Your task to perform on an android device: turn notification dots off Image 0: 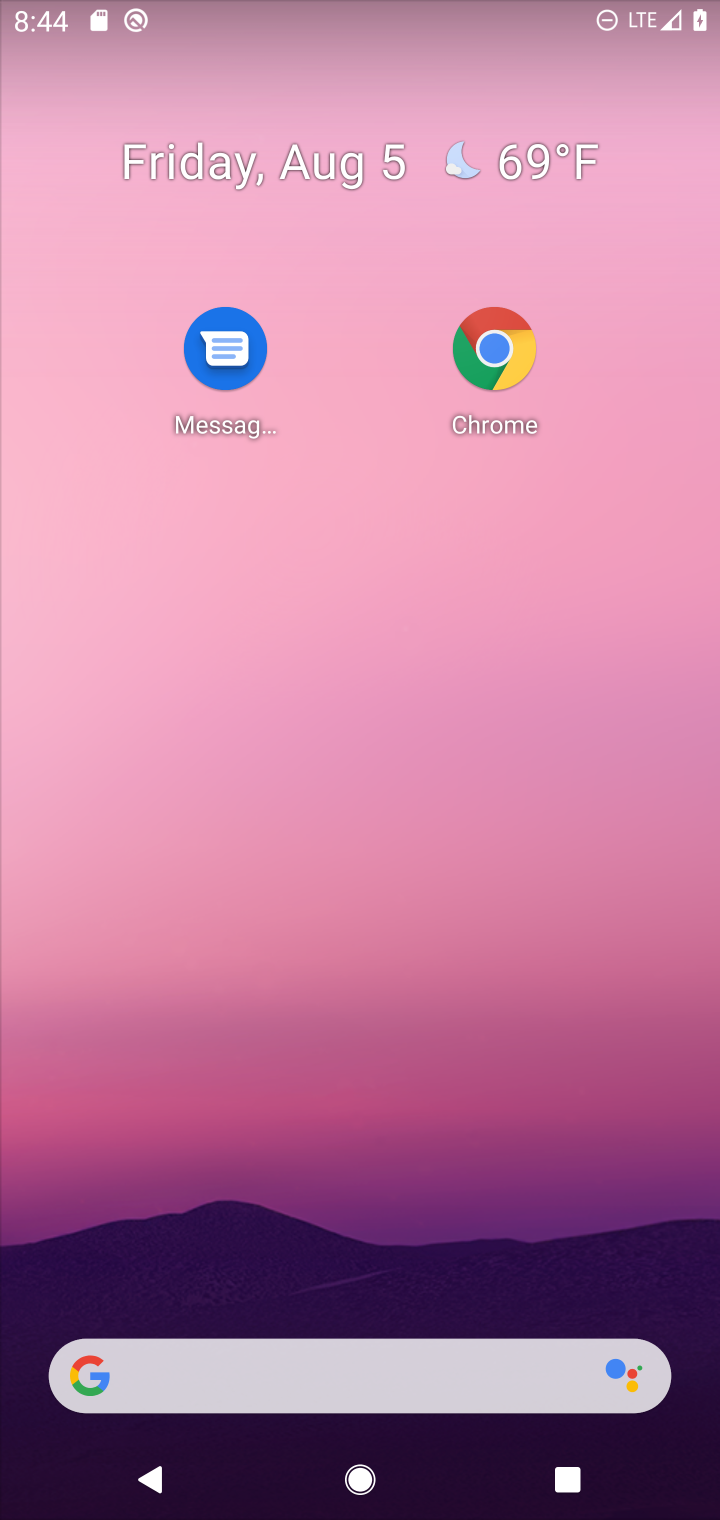
Step 0: drag from (540, 1260) to (604, 713)
Your task to perform on an android device: turn notification dots off Image 1: 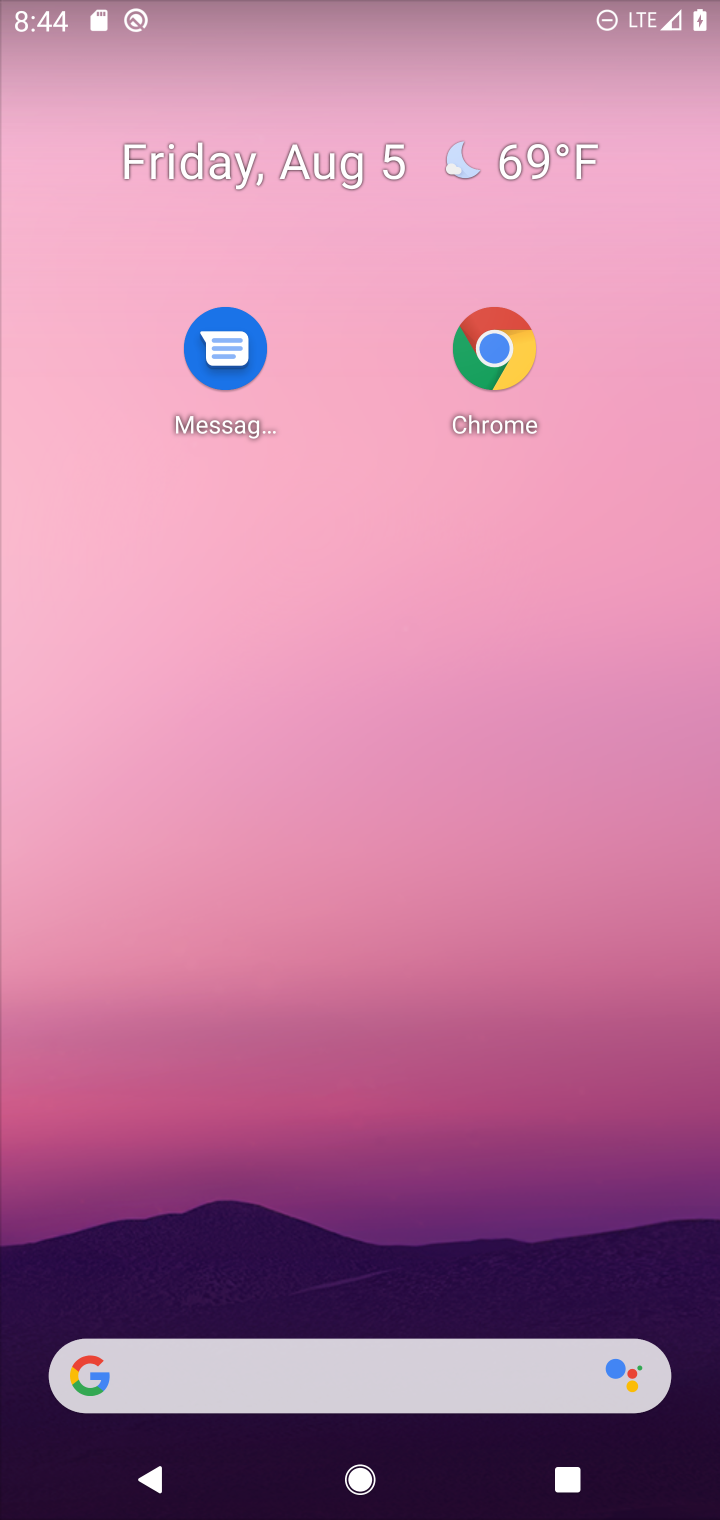
Step 1: drag from (454, 1416) to (561, 864)
Your task to perform on an android device: turn notification dots off Image 2: 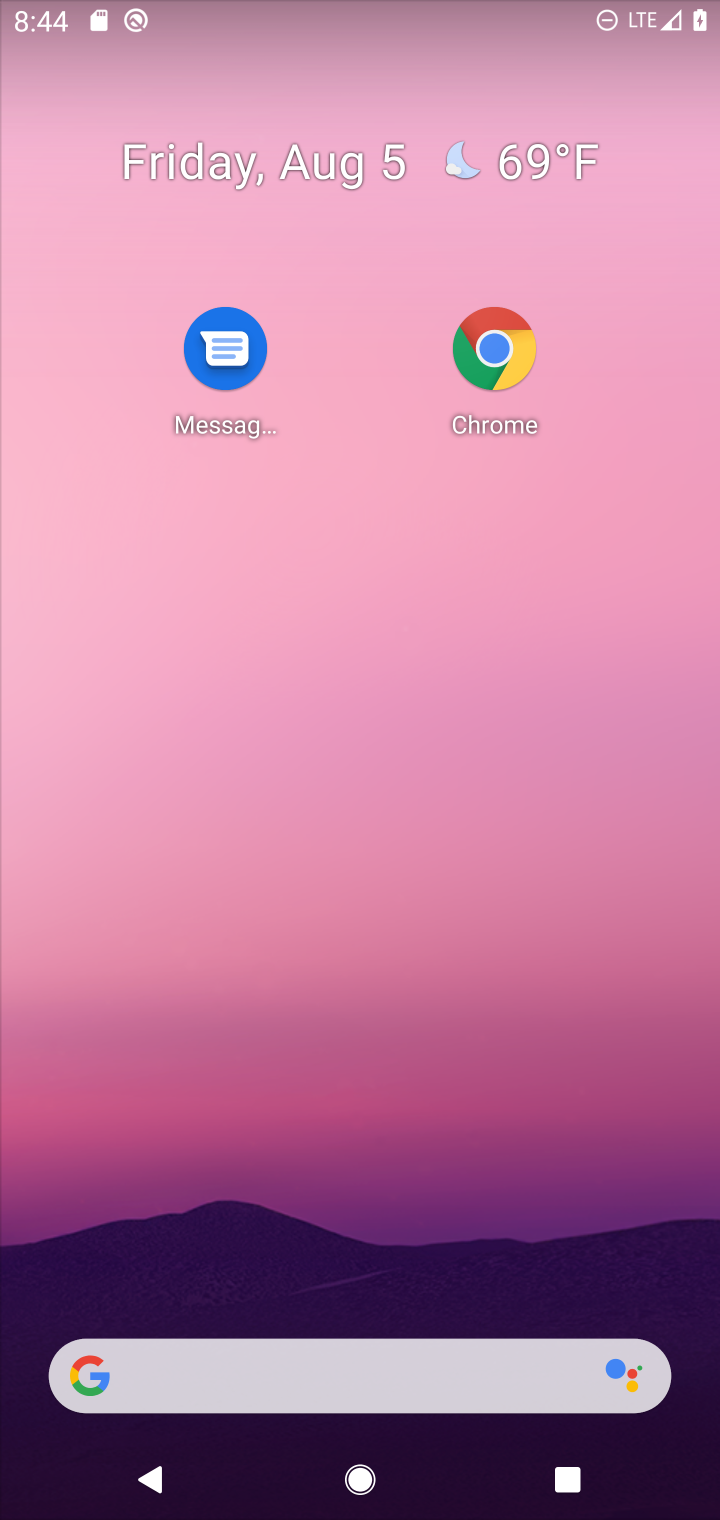
Step 2: drag from (410, 1417) to (530, 568)
Your task to perform on an android device: turn notification dots off Image 3: 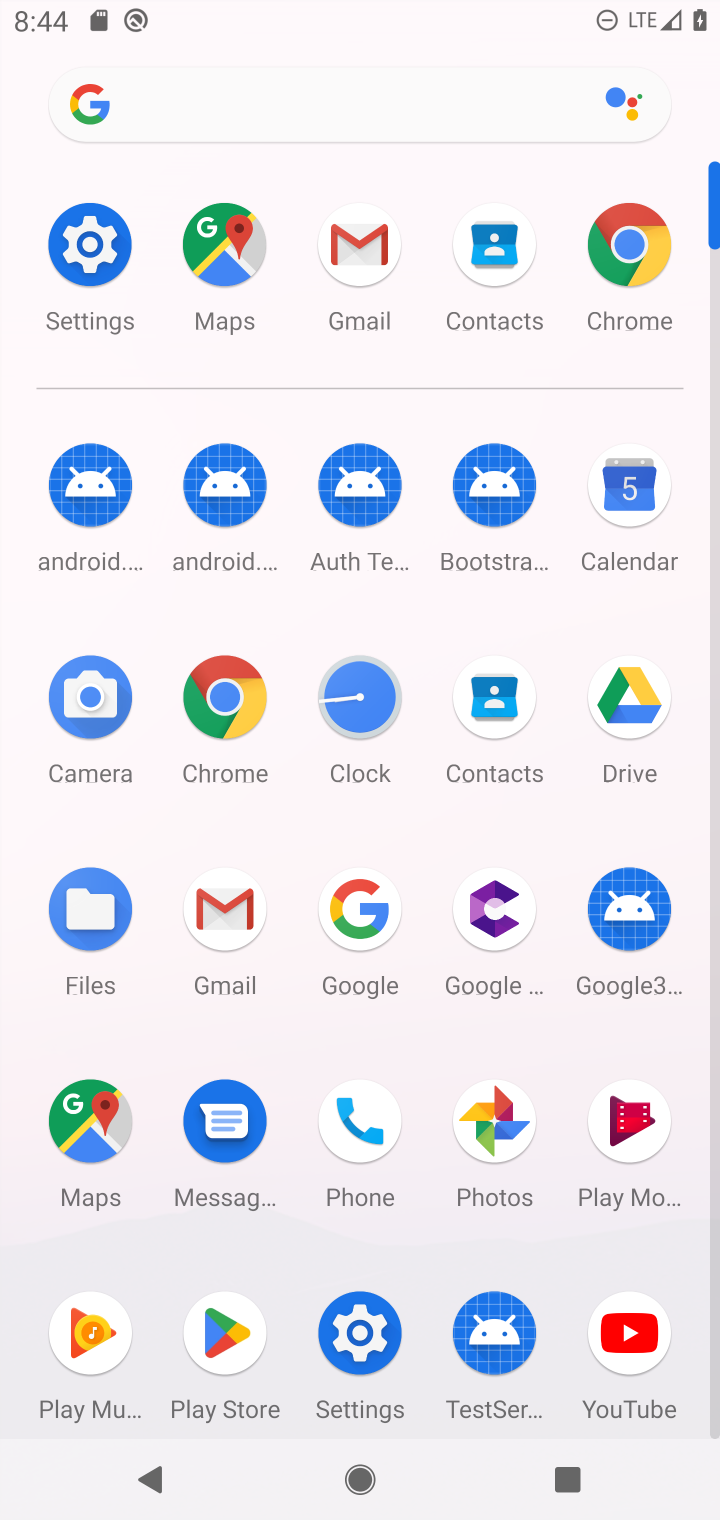
Step 3: click (67, 250)
Your task to perform on an android device: turn notification dots off Image 4: 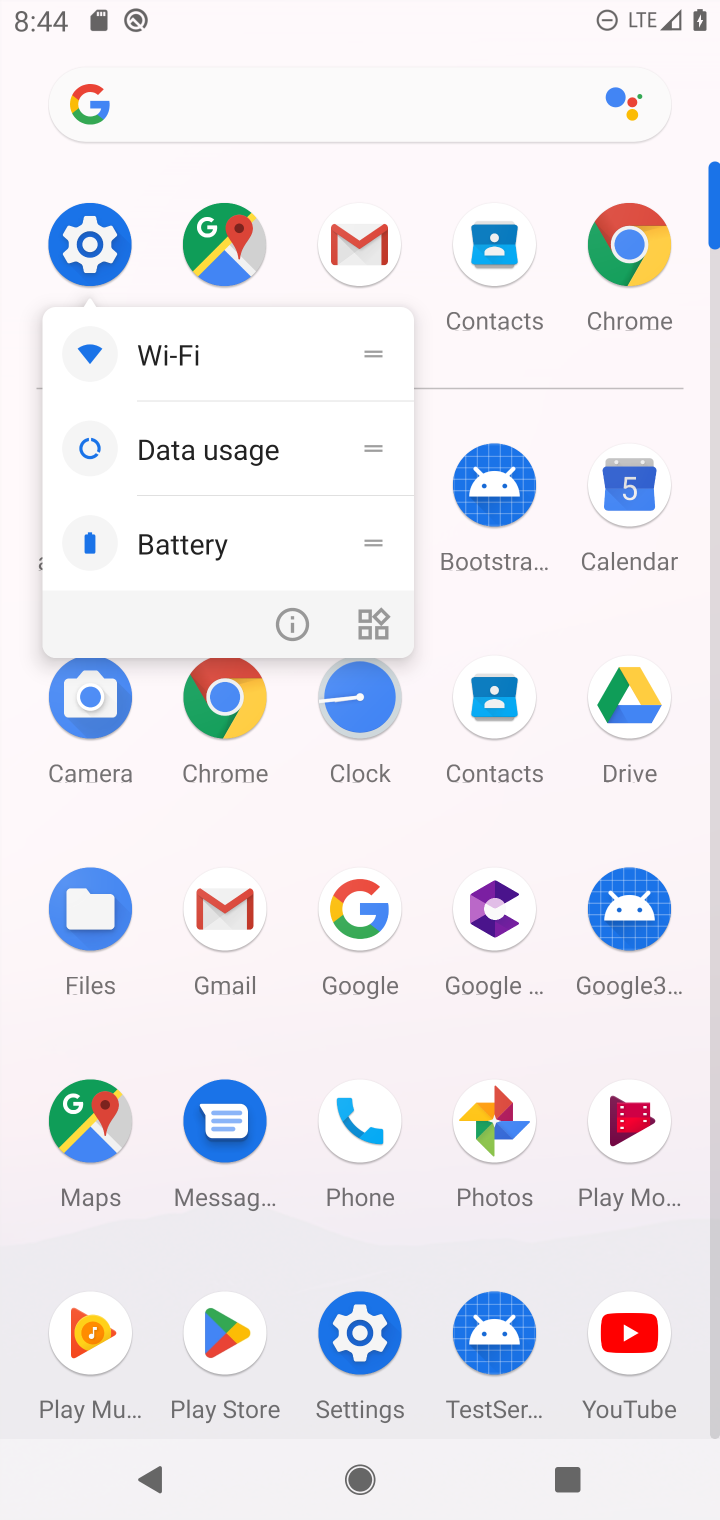
Step 4: click (105, 236)
Your task to perform on an android device: turn notification dots off Image 5: 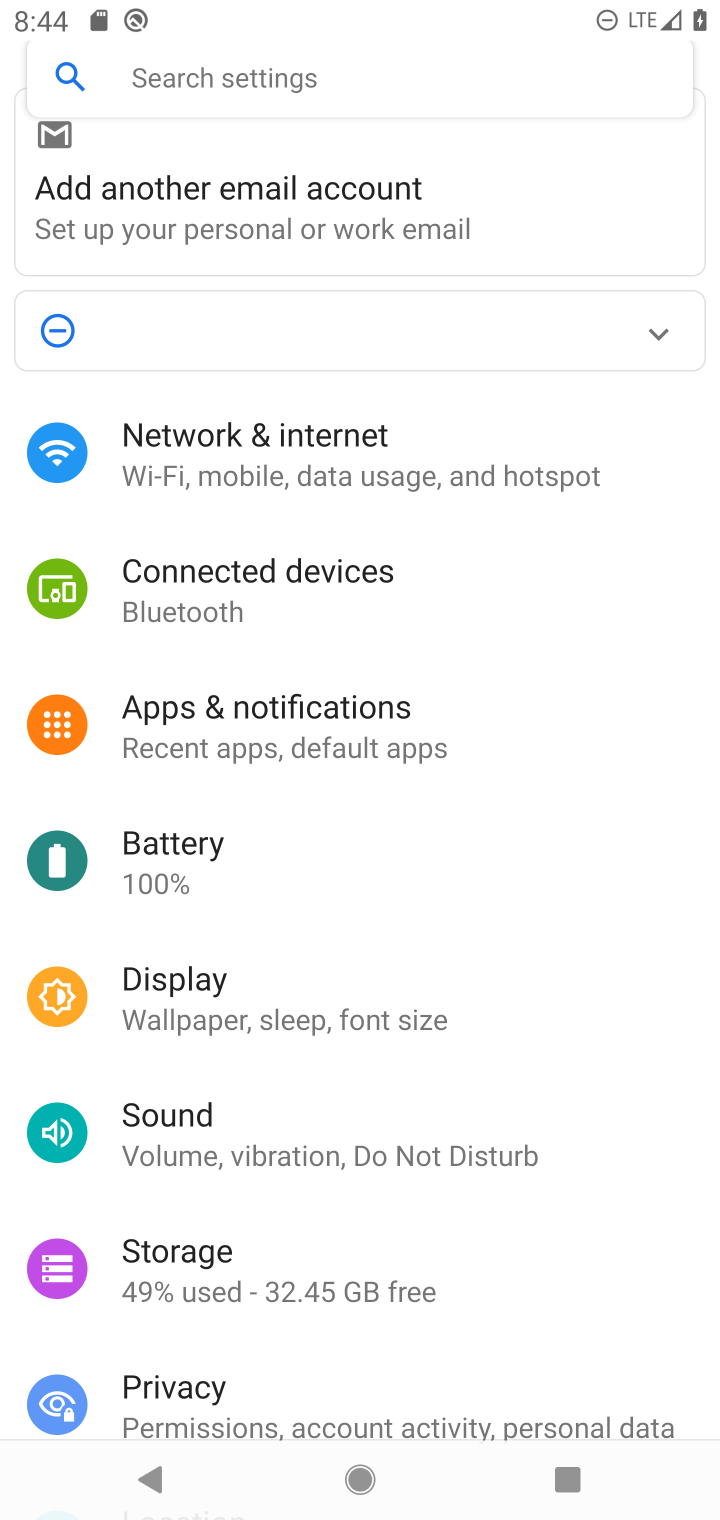
Step 5: click (282, 93)
Your task to perform on an android device: turn notification dots off Image 6: 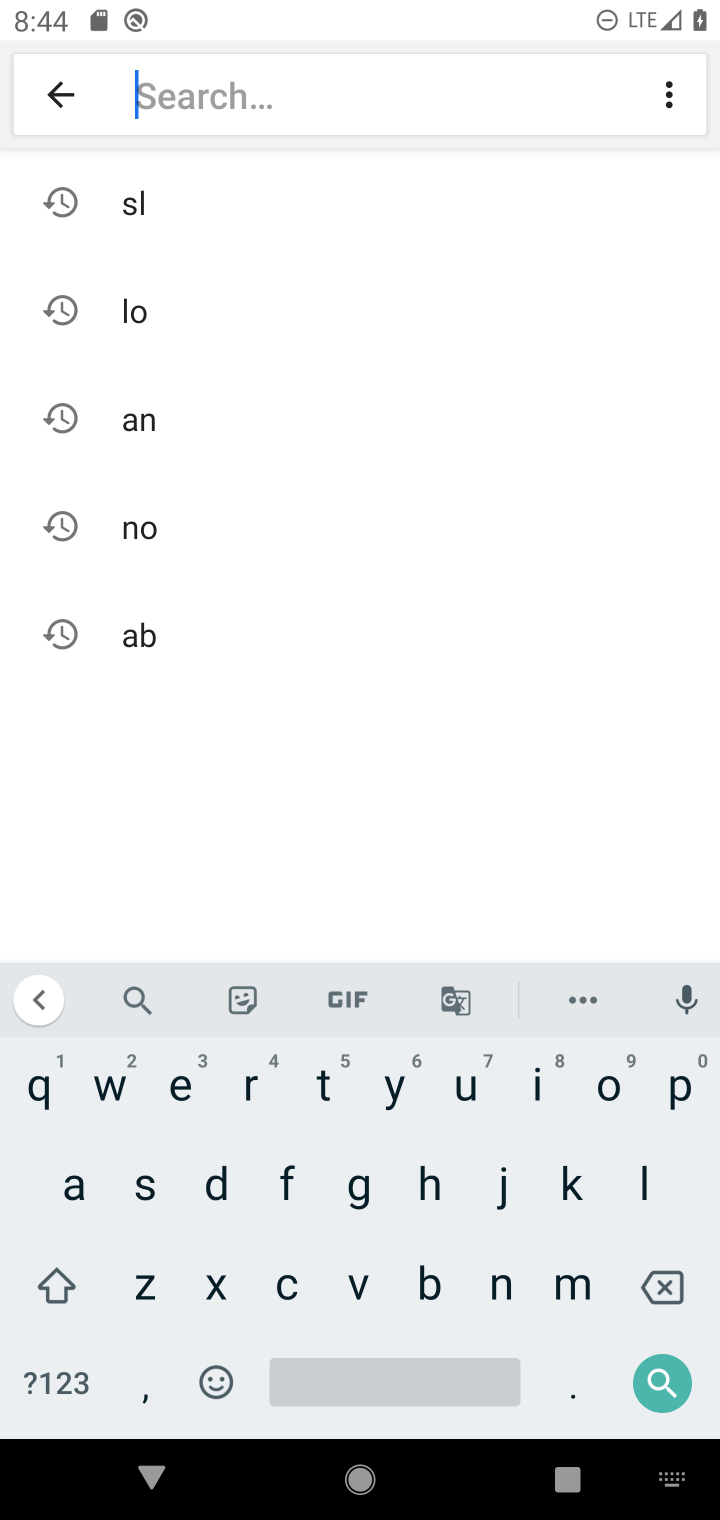
Step 6: click (155, 525)
Your task to perform on an android device: turn notification dots off Image 7: 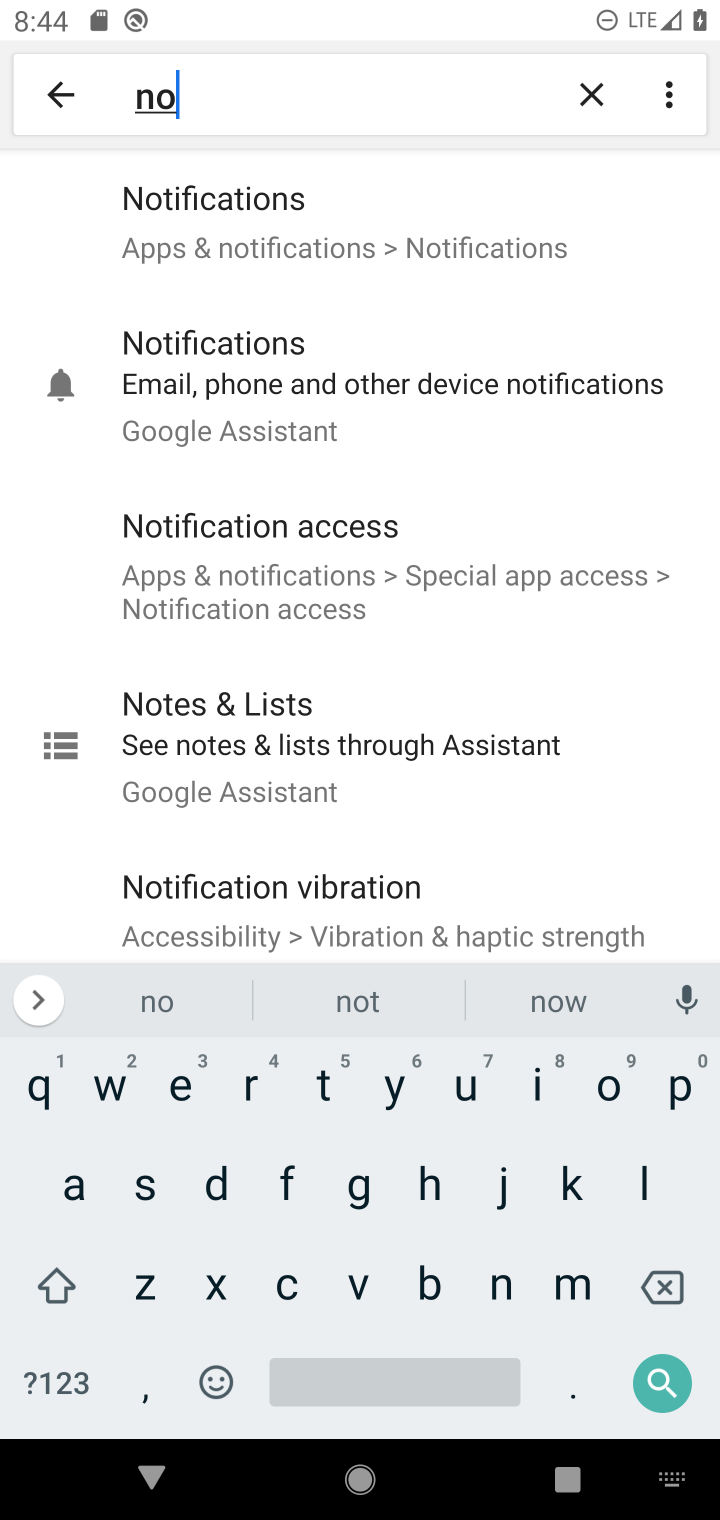
Step 7: click (259, 253)
Your task to perform on an android device: turn notification dots off Image 8: 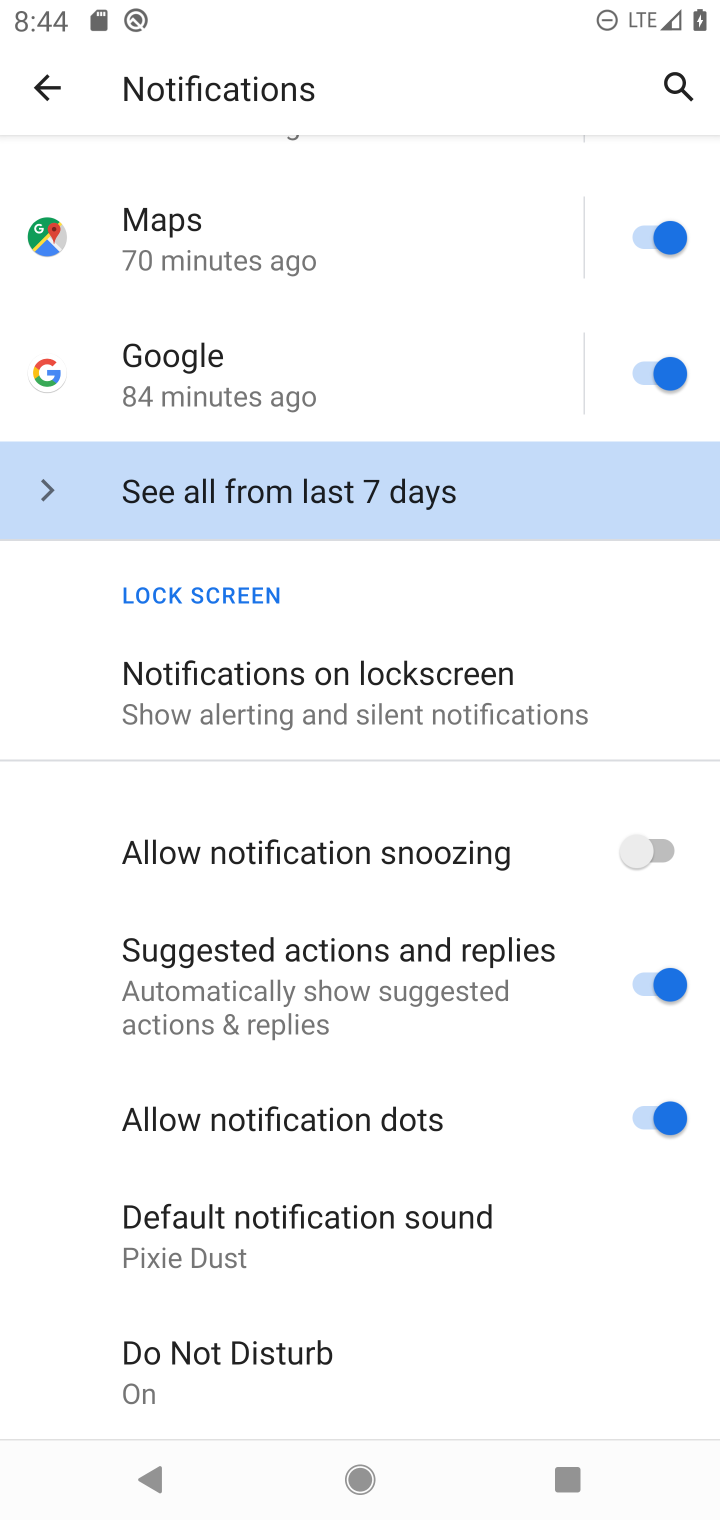
Step 8: click (292, 720)
Your task to perform on an android device: turn notification dots off Image 9: 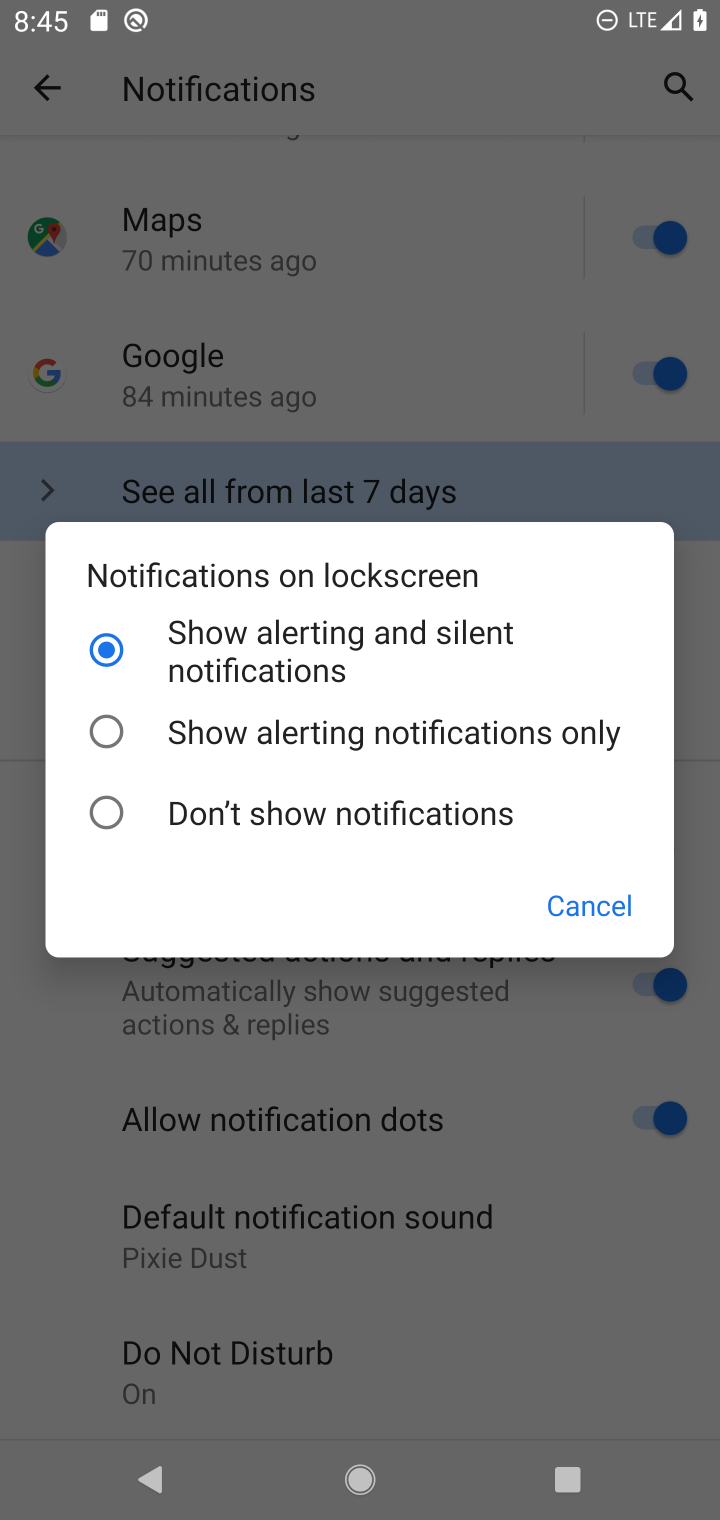
Step 9: click (155, 310)
Your task to perform on an android device: turn notification dots off Image 10: 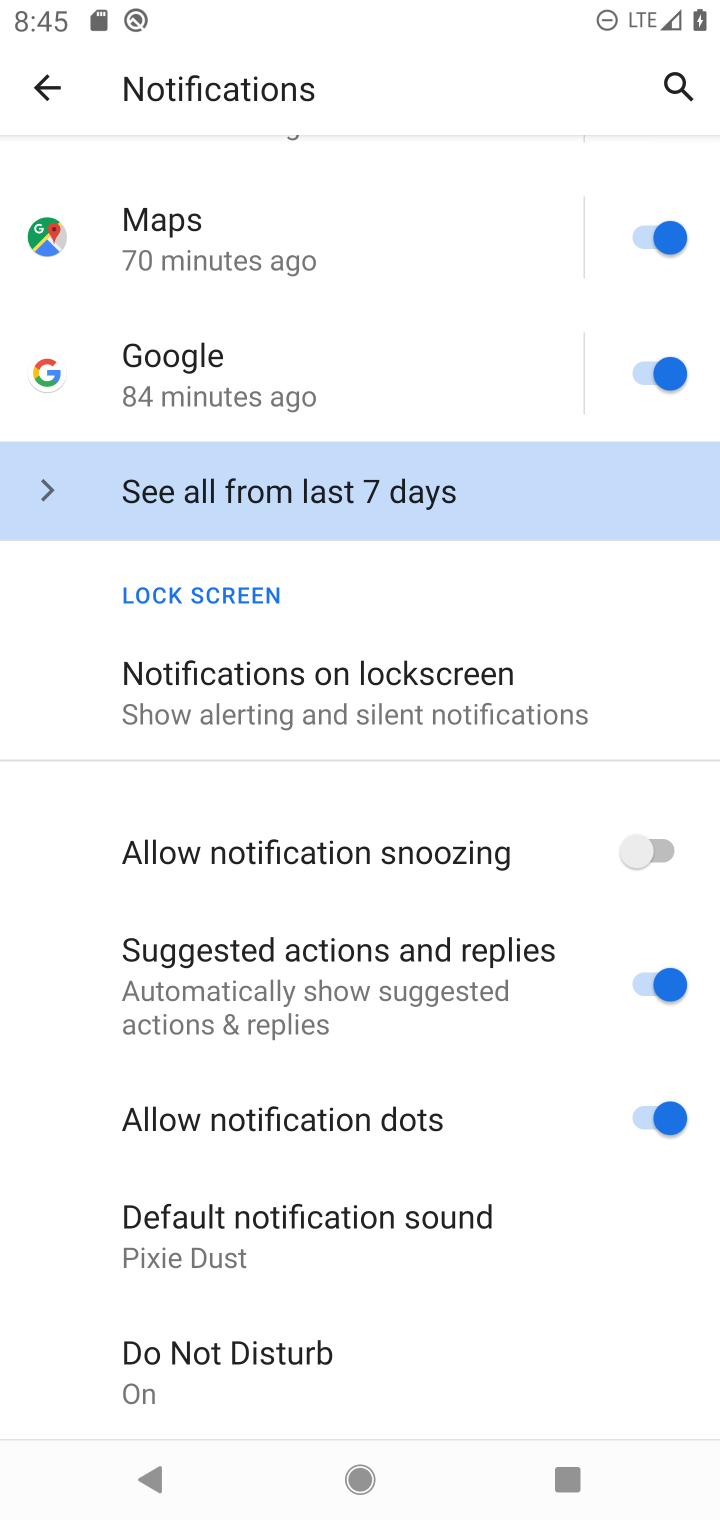
Step 10: click (531, 1108)
Your task to perform on an android device: turn notification dots off Image 11: 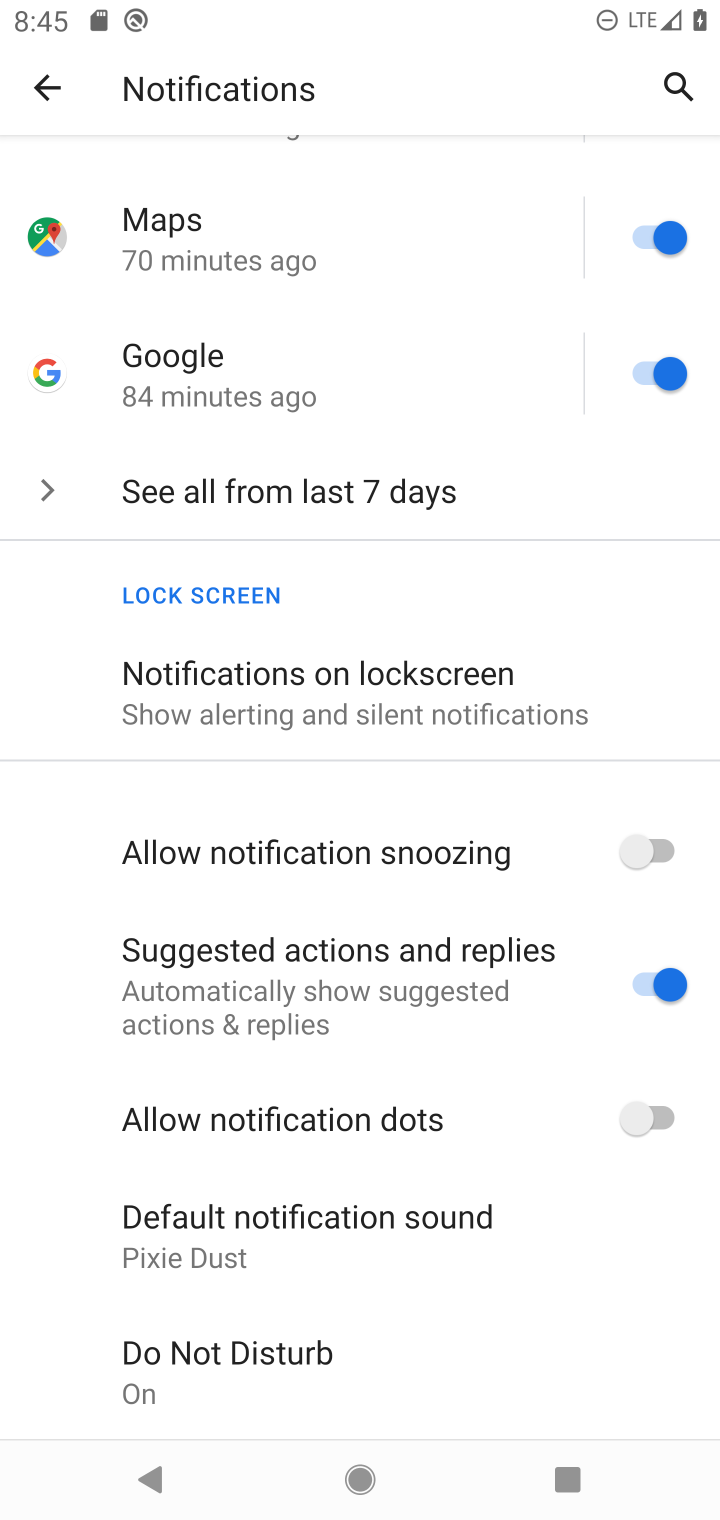
Step 11: task complete